Your task to perform on an android device: turn on the 24-hour format for clock Image 0: 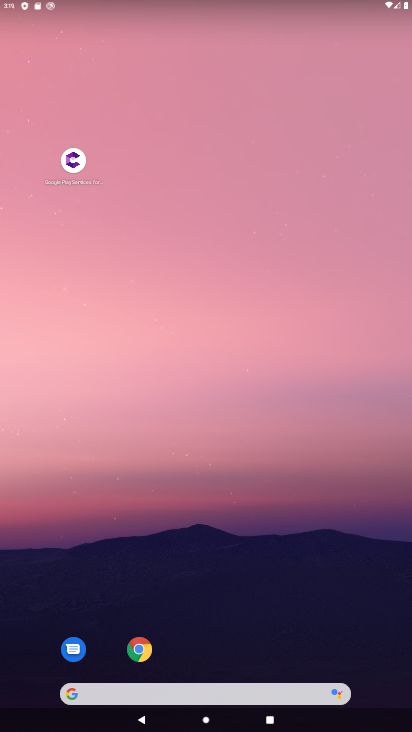
Step 0: drag from (232, 636) to (208, 240)
Your task to perform on an android device: turn on the 24-hour format for clock Image 1: 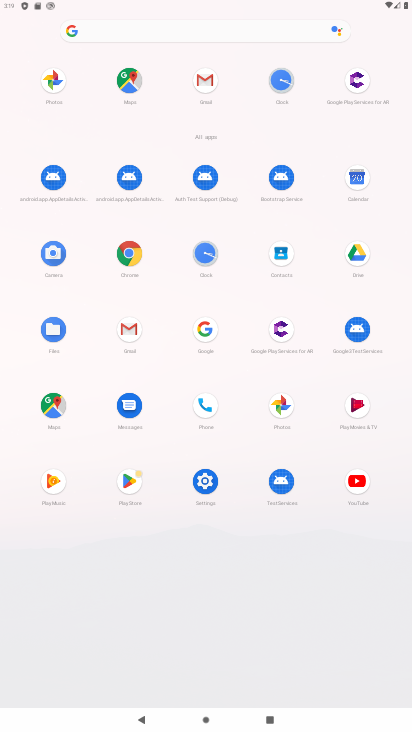
Step 1: click (299, 84)
Your task to perform on an android device: turn on the 24-hour format for clock Image 2: 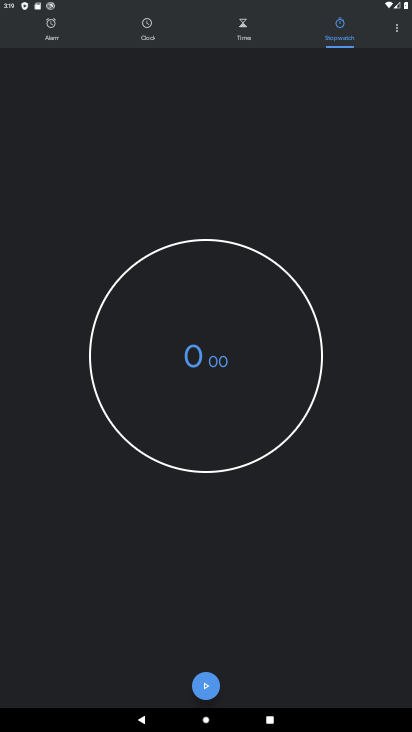
Step 2: click (400, 37)
Your task to perform on an android device: turn on the 24-hour format for clock Image 3: 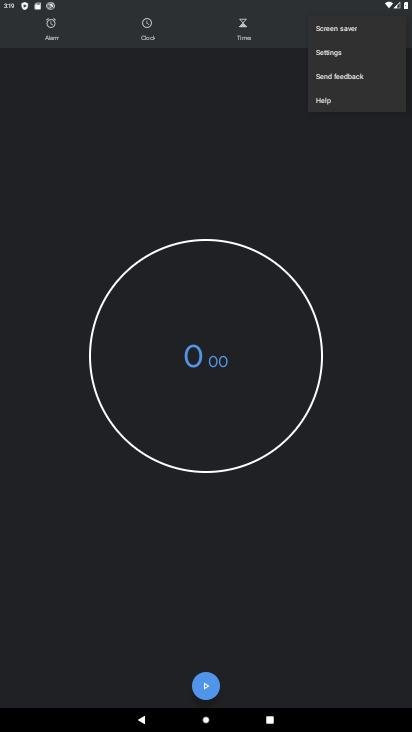
Step 3: click (358, 57)
Your task to perform on an android device: turn on the 24-hour format for clock Image 4: 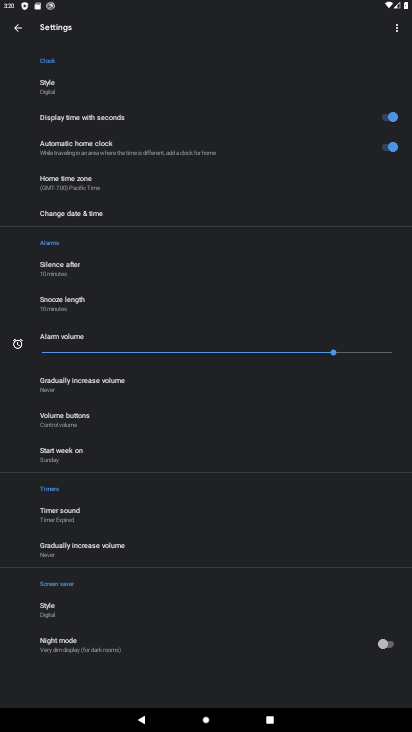
Step 4: click (97, 218)
Your task to perform on an android device: turn on the 24-hour format for clock Image 5: 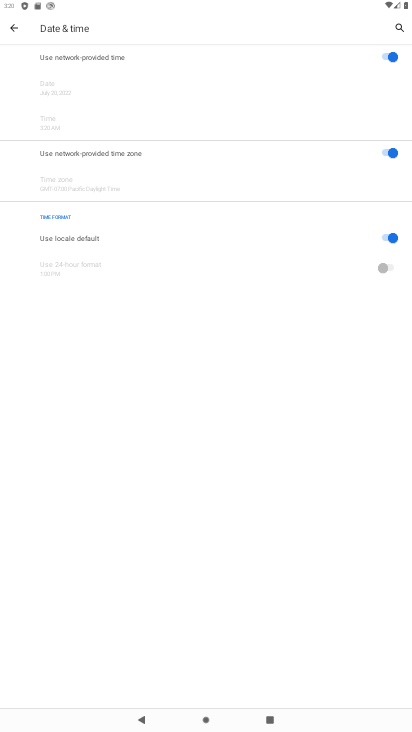
Step 5: click (388, 261)
Your task to perform on an android device: turn on the 24-hour format for clock Image 6: 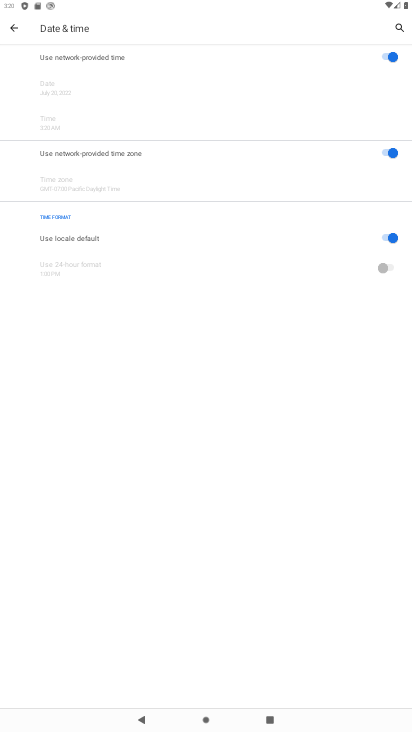
Step 6: click (383, 274)
Your task to perform on an android device: turn on the 24-hour format for clock Image 7: 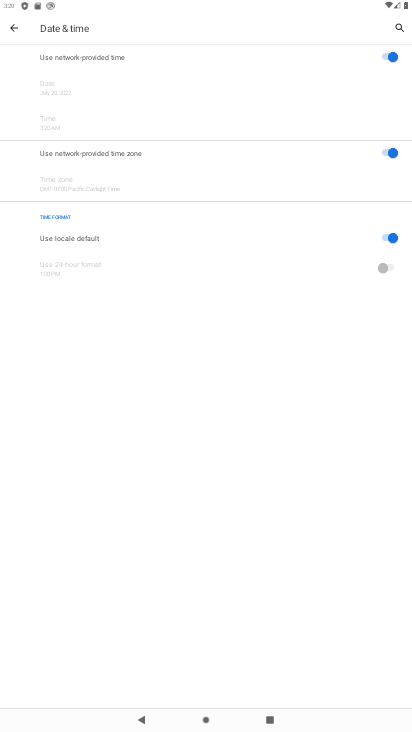
Step 7: click (393, 233)
Your task to perform on an android device: turn on the 24-hour format for clock Image 8: 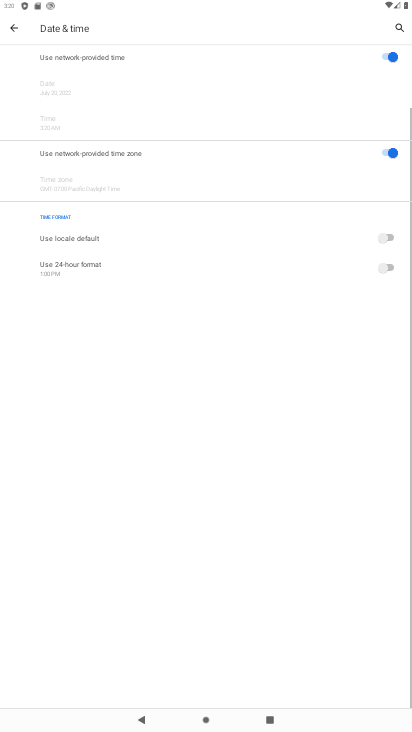
Step 8: click (389, 267)
Your task to perform on an android device: turn on the 24-hour format for clock Image 9: 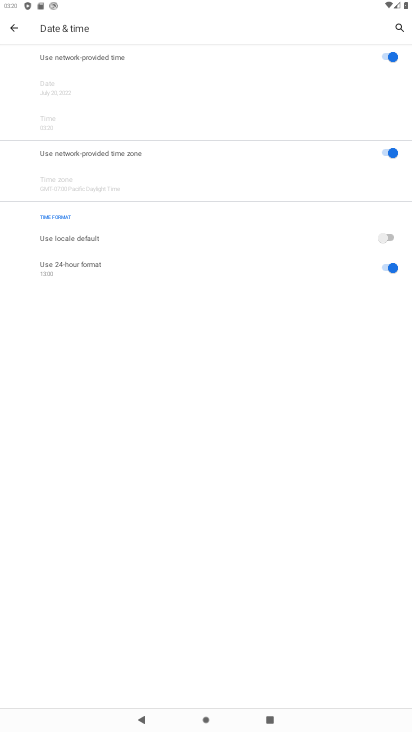
Step 9: task complete